Your task to perform on an android device: change notification settings in the gmail app Image 0: 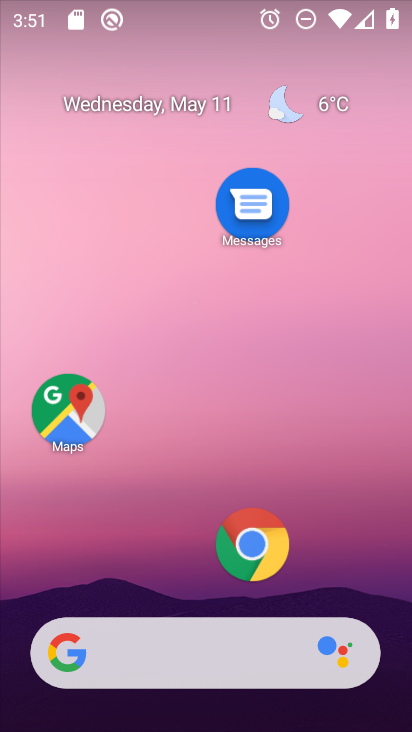
Step 0: drag from (130, 574) to (268, 18)
Your task to perform on an android device: change notification settings in the gmail app Image 1: 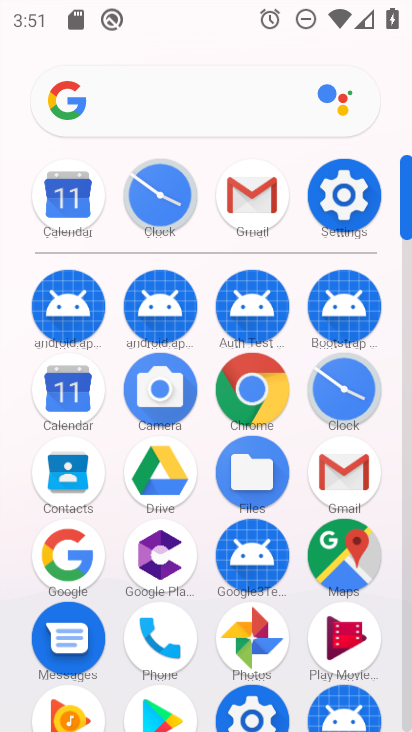
Step 1: click (256, 187)
Your task to perform on an android device: change notification settings in the gmail app Image 2: 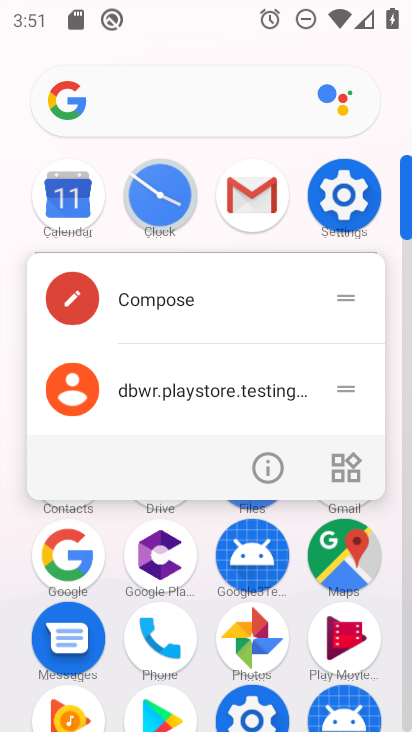
Step 2: click (263, 476)
Your task to perform on an android device: change notification settings in the gmail app Image 3: 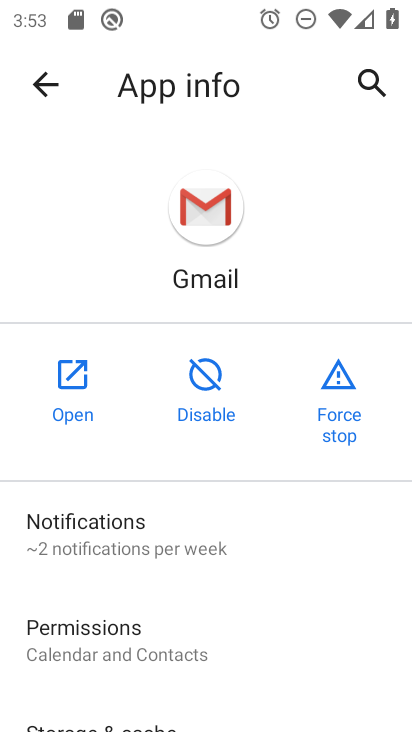
Step 3: click (162, 535)
Your task to perform on an android device: change notification settings in the gmail app Image 4: 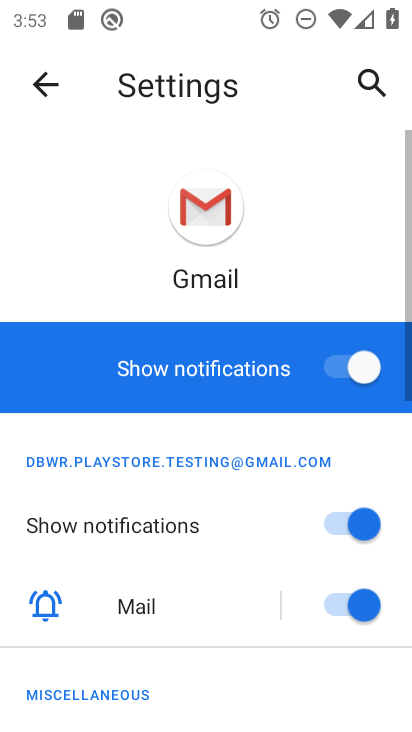
Step 4: drag from (165, 591) to (291, 294)
Your task to perform on an android device: change notification settings in the gmail app Image 5: 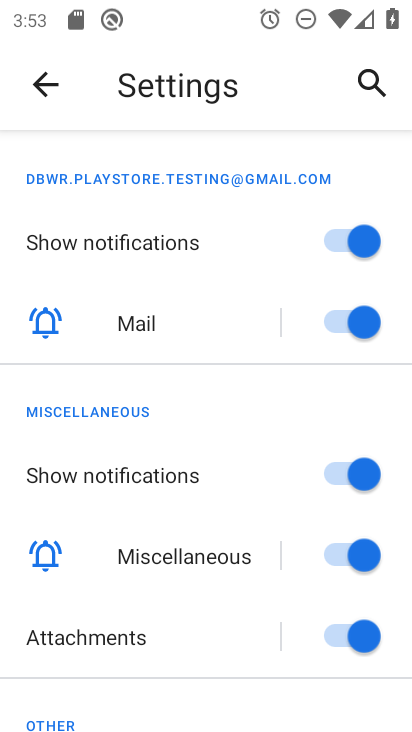
Step 5: click (359, 474)
Your task to perform on an android device: change notification settings in the gmail app Image 6: 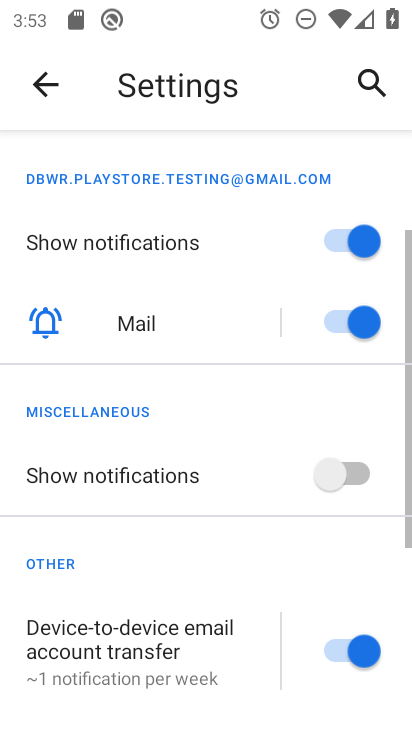
Step 6: task complete